Your task to perform on an android device: What's the weather going to be this weekend? Image 0: 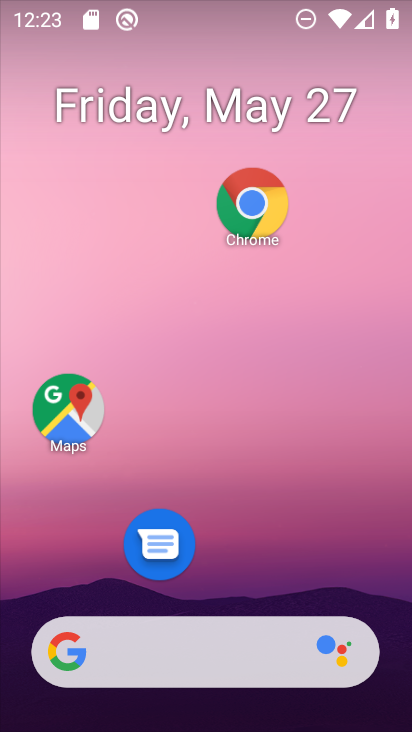
Step 0: drag from (236, 547) to (270, 210)
Your task to perform on an android device: What's the weather going to be this weekend? Image 1: 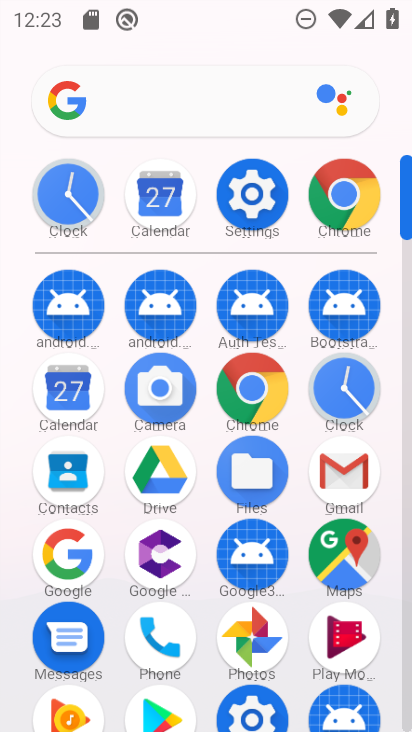
Step 1: click (182, 93)
Your task to perform on an android device: What's the weather going to be this weekend? Image 2: 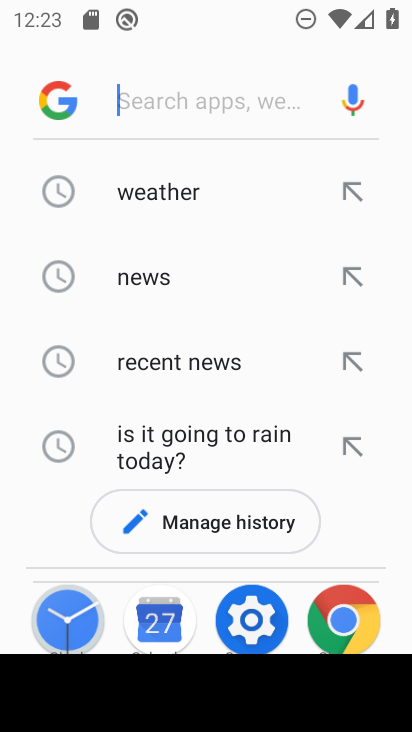
Step 2: drag from (171, 405) to (198, 126)
Your task to perform on an android device: What's the weather going to be this weekend? Image 3: 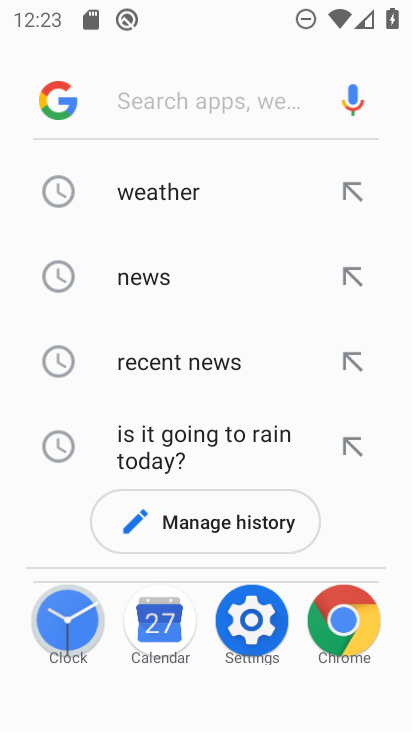
Step 3: type "weather going to be this weekend?"
Your task to perform on an android device: What's the weather going to be this weekend? Image 4: 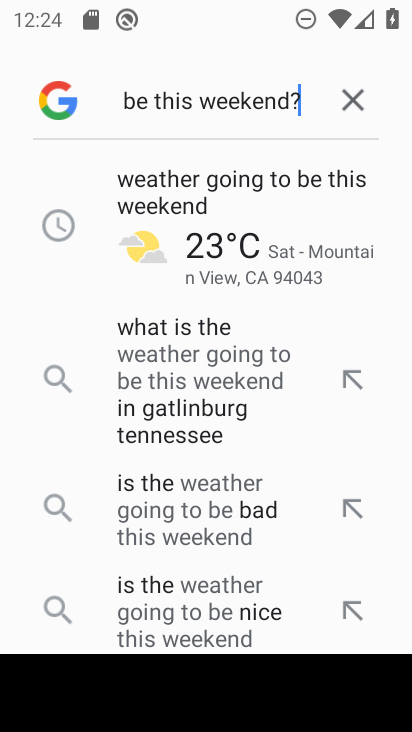
Step 4: type ""
Your task to perform on an android device: What's the weather going to be this weekend? Image 5: 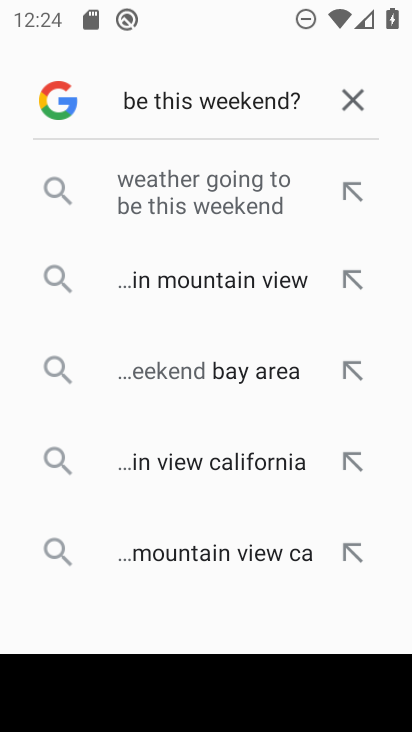
Step 5: click (185, 202)
Your task to perform on an android device: What's the weather going to be this weekend? Image 6: 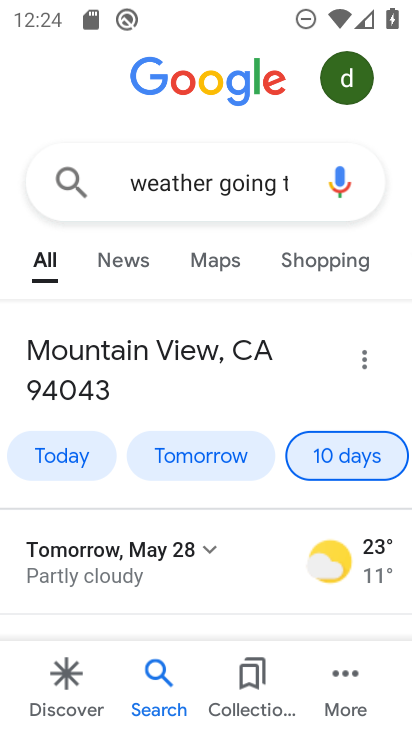
Step 6: task complete